Your task to perform on an android device: uninstall "Facebook Messenger" Image 0: 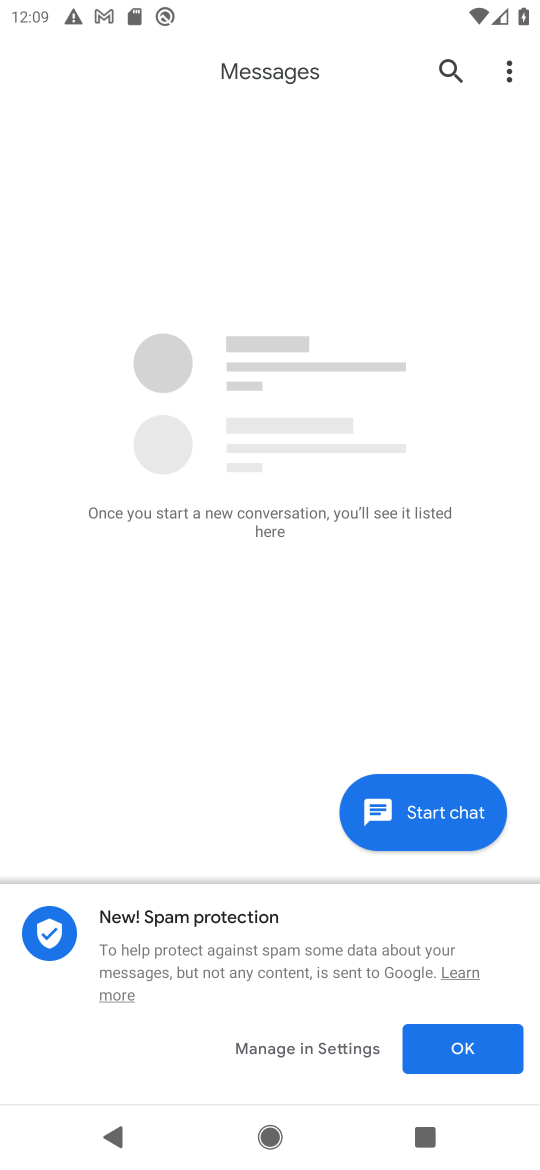
Step 0: press home button
Your task to perform on an android device: uninstall "Facebook Messenger" Image 1: 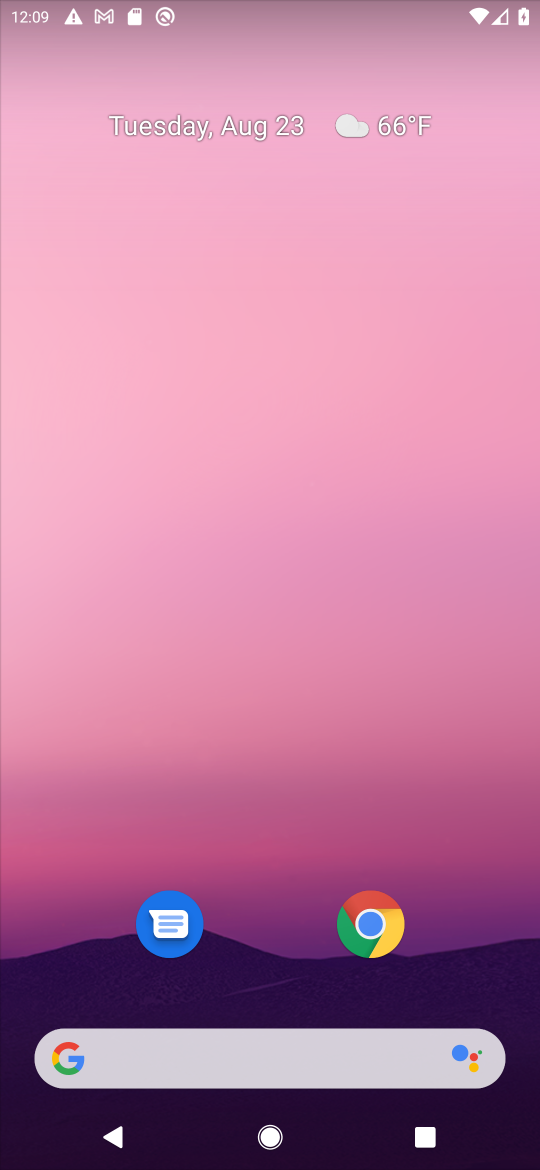
Step 1: drag from (460, 968) to (463, 188)
Your task to perform on an android device: uninstall "Facebook Messenger" Image 2: 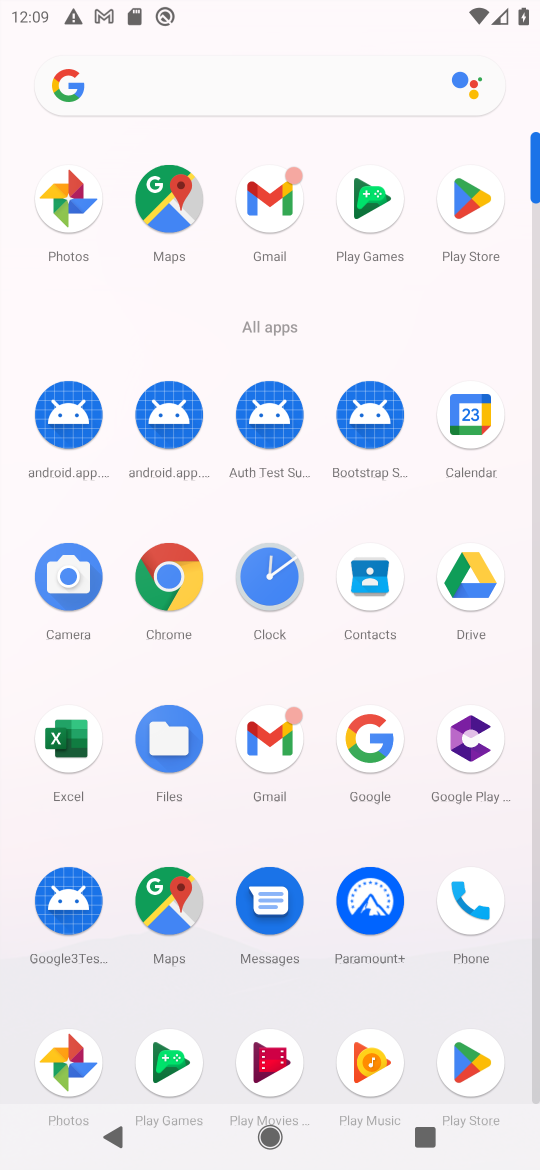
Step 2: click (464, 204)
Your task to perform on an android device: uninstall "Facebook Messenger" Image 3: 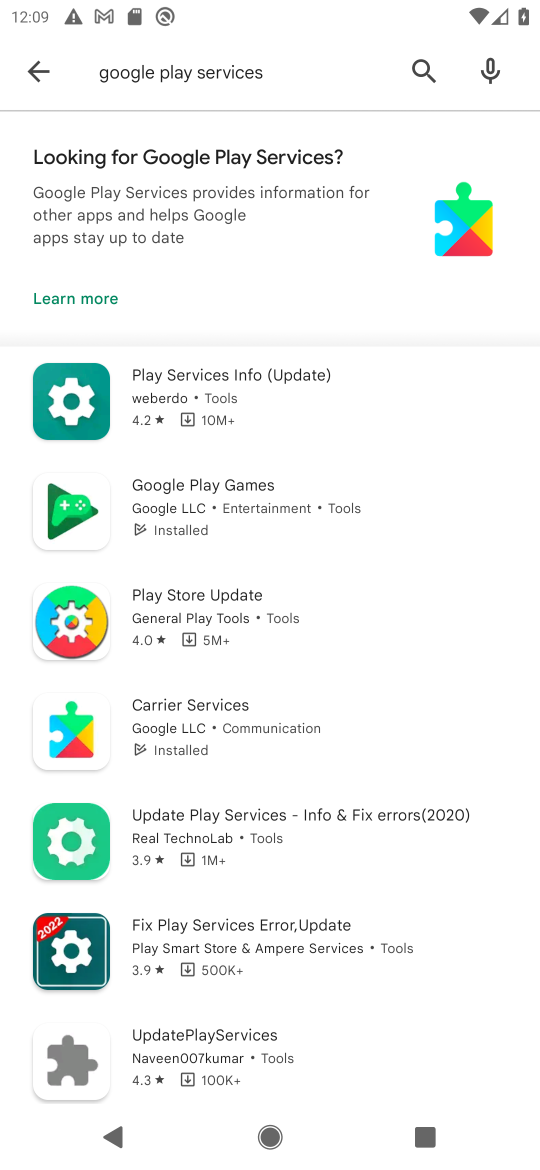
Step 3: press back button
Your task to perform on an android device: uninstall "Facebook Messenger" Image 4: 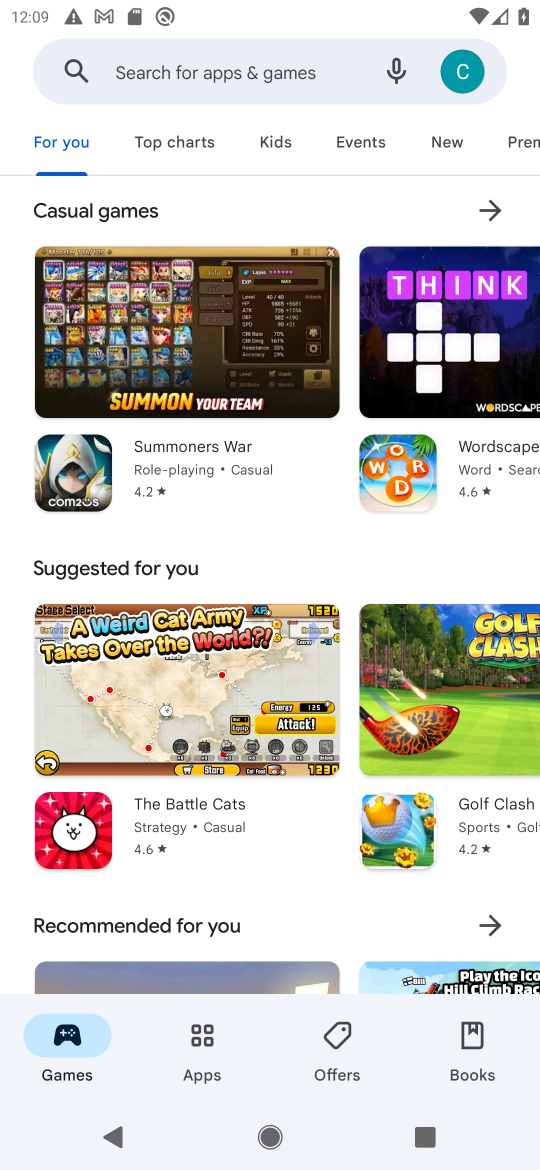
Step 4: click (155, 73)
Your task to perform on an android device: uninstall "Facebook Messenger" Image 5: 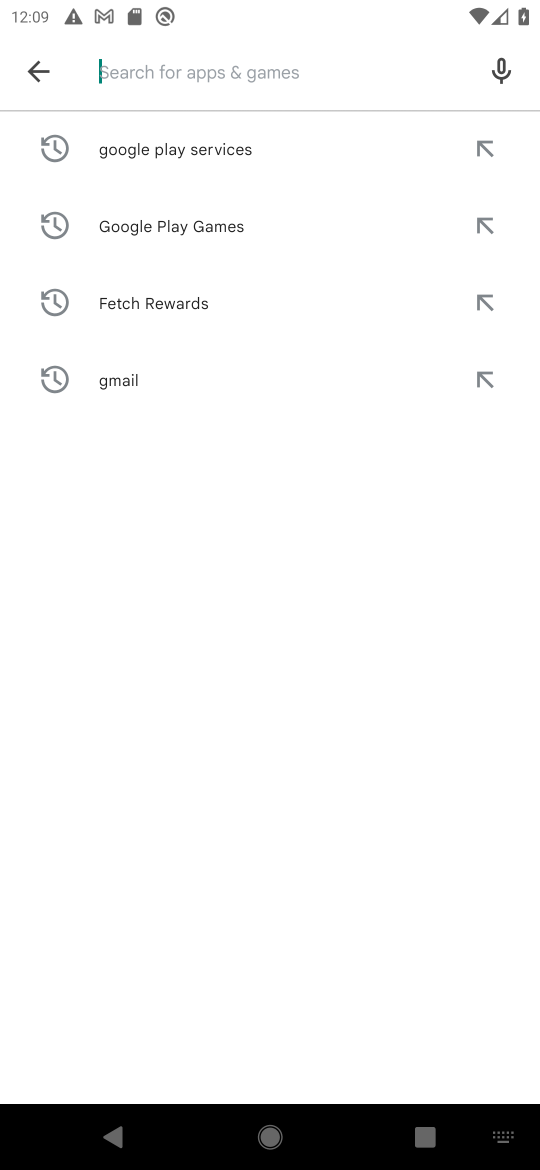
Step 5: press enter
Your task to perform on an android device: uninstall "Facebook Messenger" Image 6: 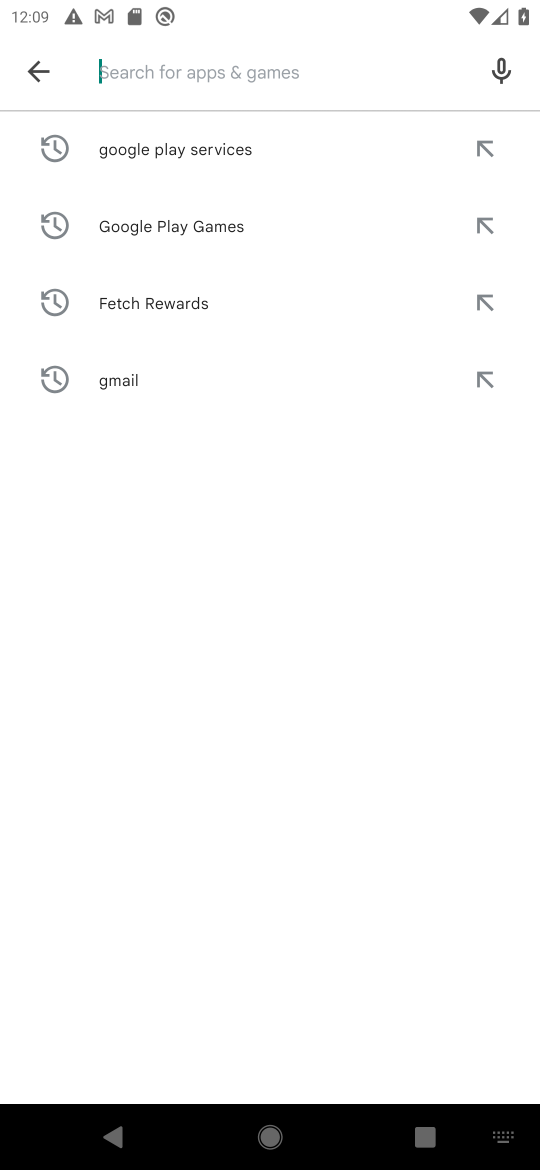
Step 6: type "Facebook Messenger"
Your task to perform on an android device: uninstall "Facebook Messenger" Image 7: 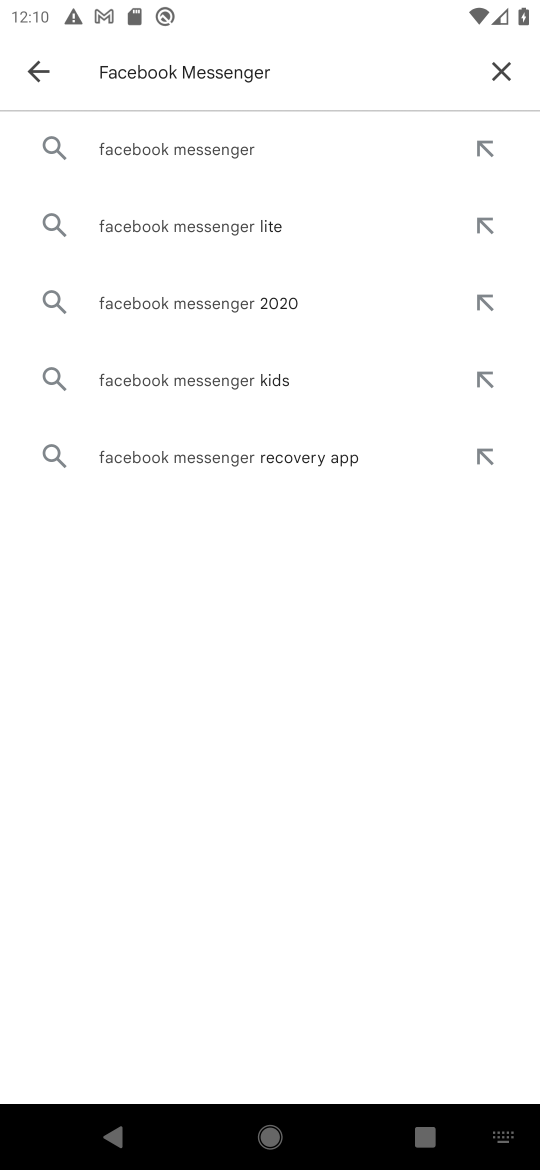
Step 7: click (182, 143)
Your task to perform on an android device: uninstall "Facebook Messenger" Image 8: 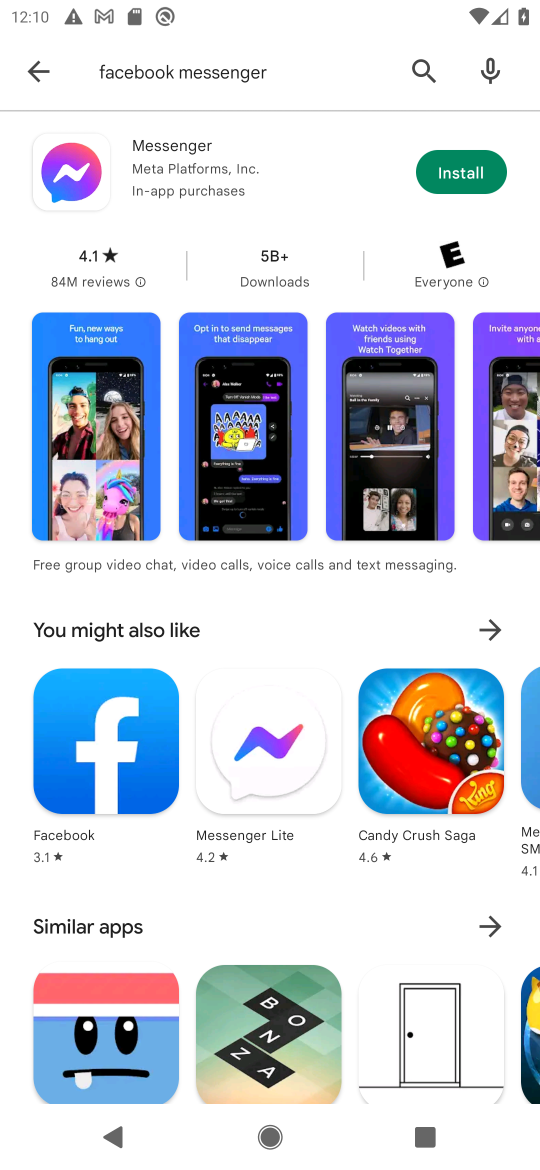
Step 8: task complete